Your task to perform on an android device: Clear all items from cart on costco.com. Search for "duracell triple a" on costco.com, select the first entry, and add it to the cart. Image 0: 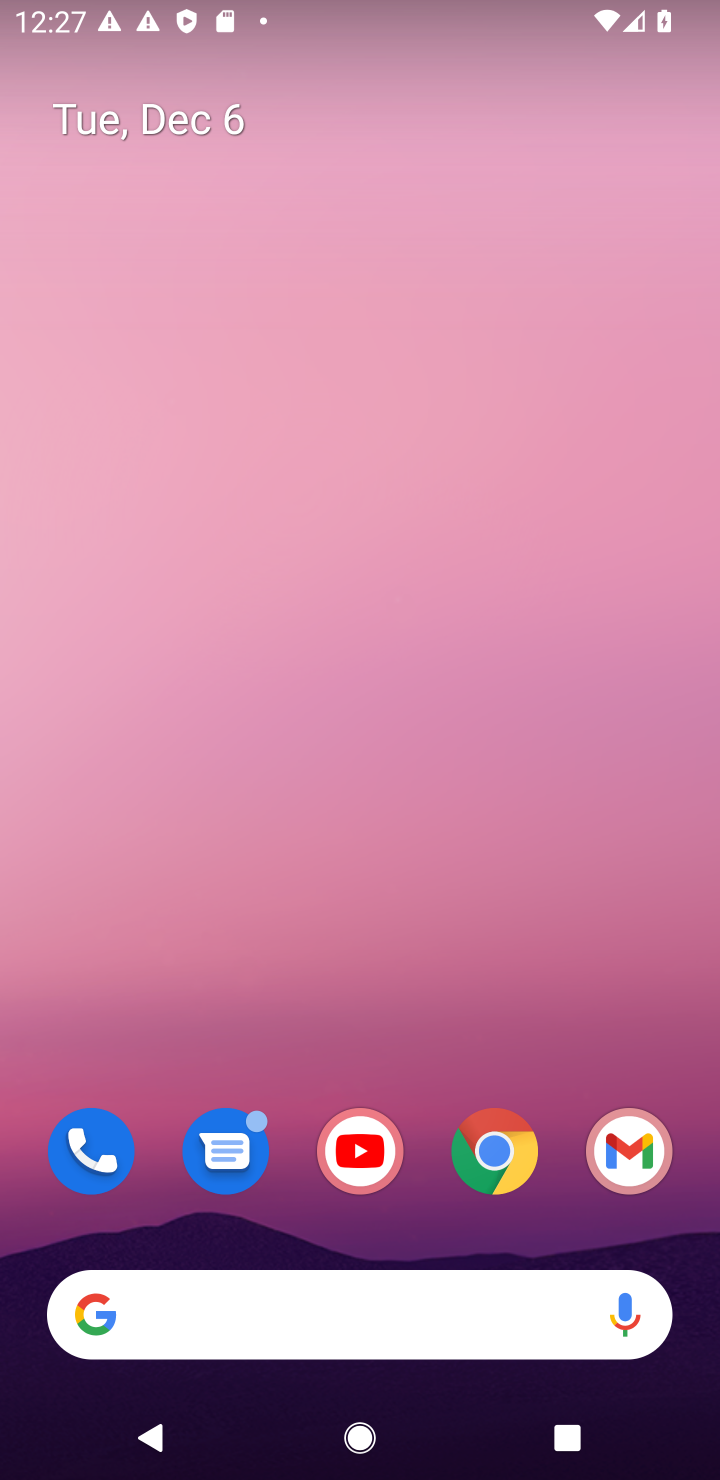
Step 0: click (489, 1166)
Your task to perform on an android device: Clear all items from cart on costco.com. Search for "duracell triple a" on costco.com, select the first entry, and add it to the cart. Image 1: 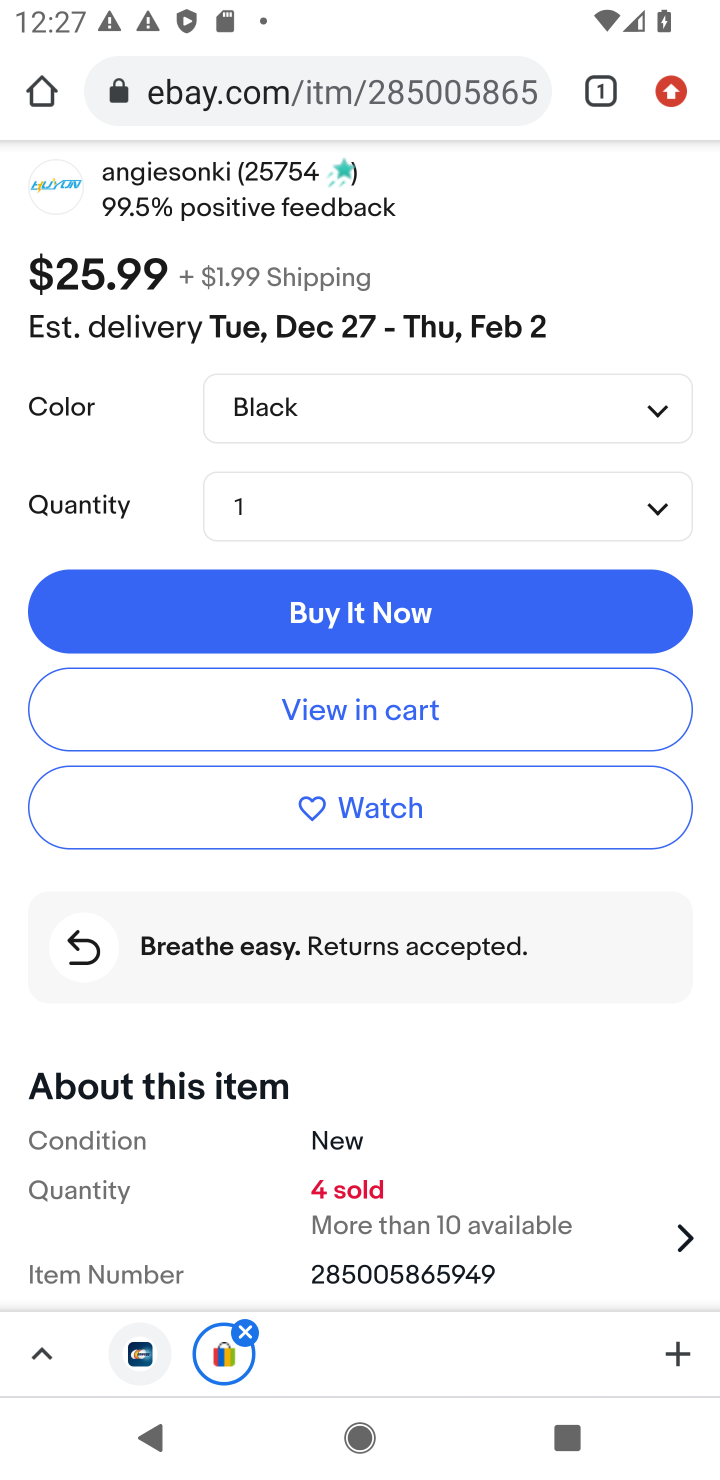
Step 1: click (288, 96)
Your task to perform on an android device: Clear all items from cart on costco.com. Search for "duracell triple a" on costco.com, select the first entry, and add it to the cart. Image 2: 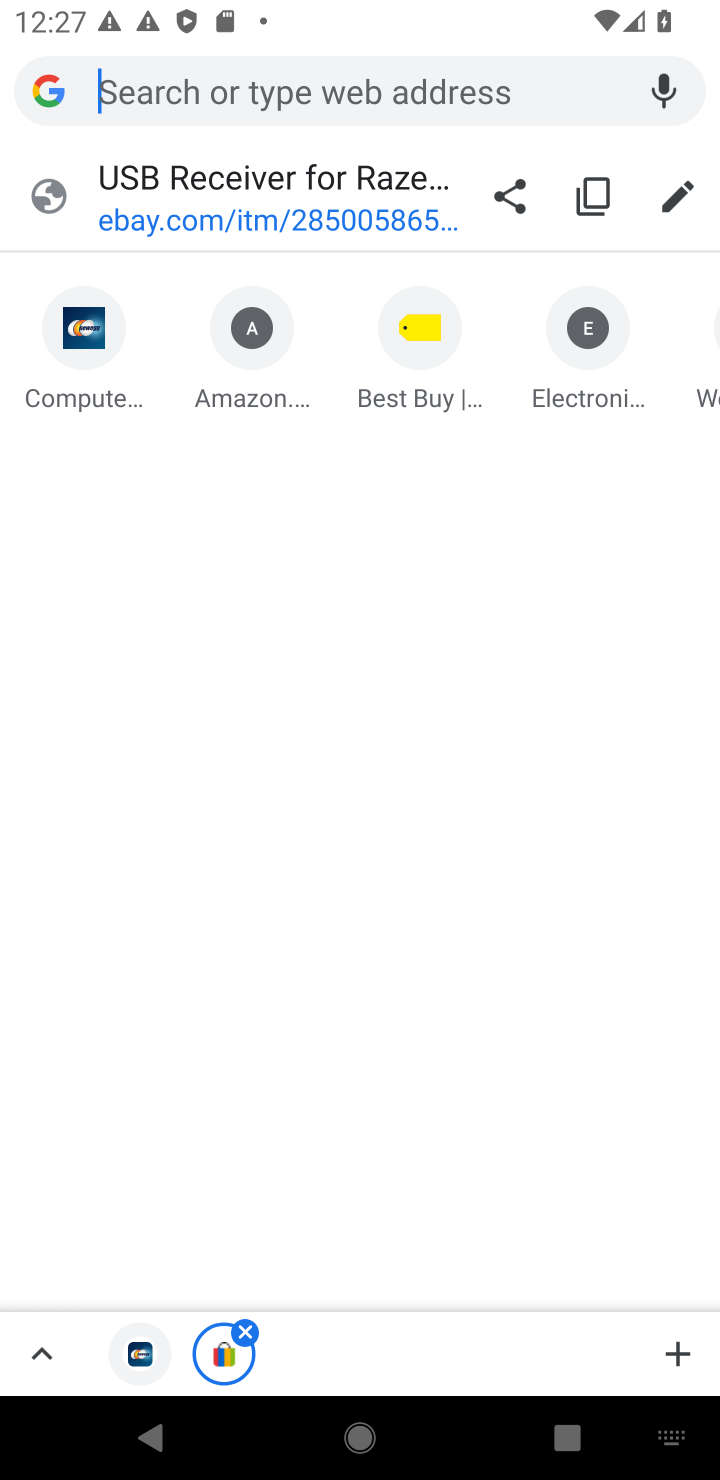
Step 2: type "costco.com"
Your task to perform on an android device: Clear all items from cart on costco.com. Search for "duracell triple a" on costco.com, select the first entry, and add it to the cart. Image 3: 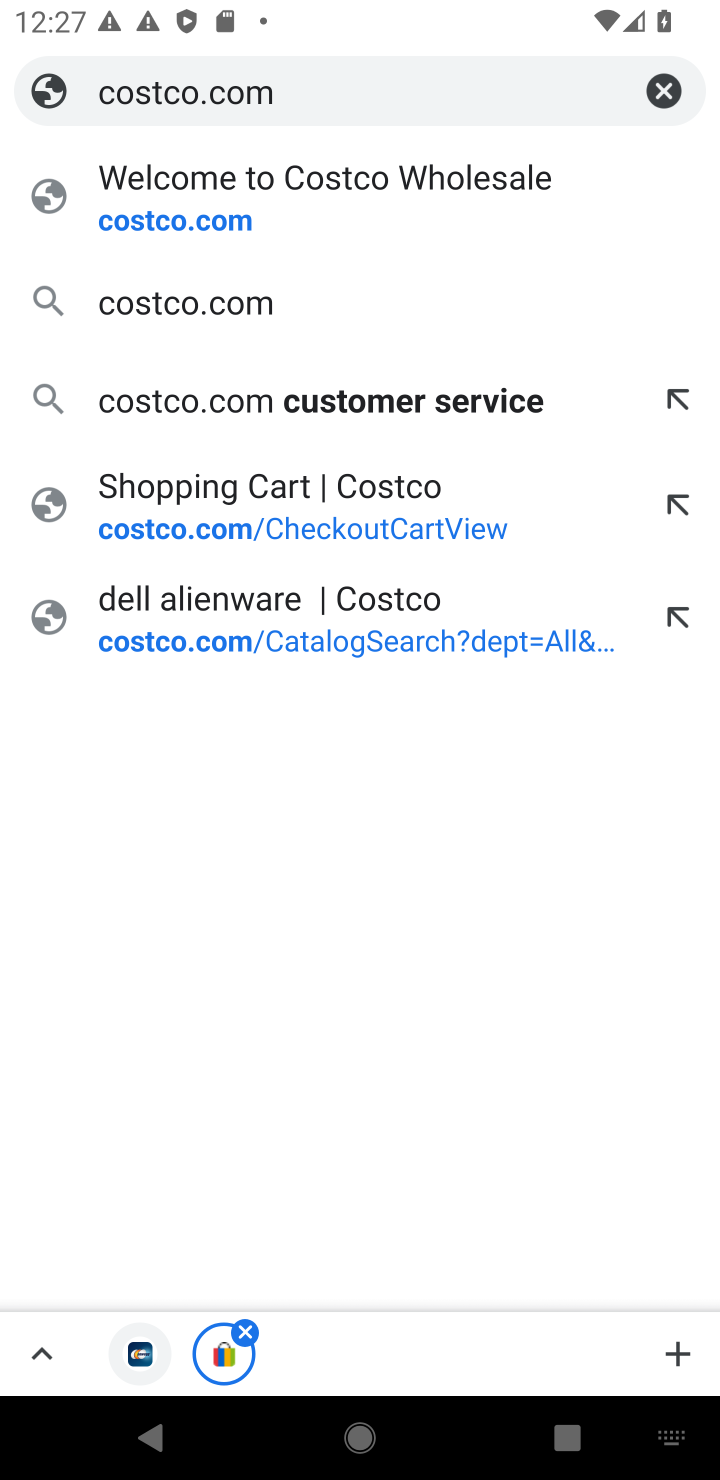
Step 3: click (154, 223)
Your task to perform on an android device: Clear all items from cart on costco.com. Search for "duracell triple a" on costco.com, select the first entry, and add it to the cart. Image 4: 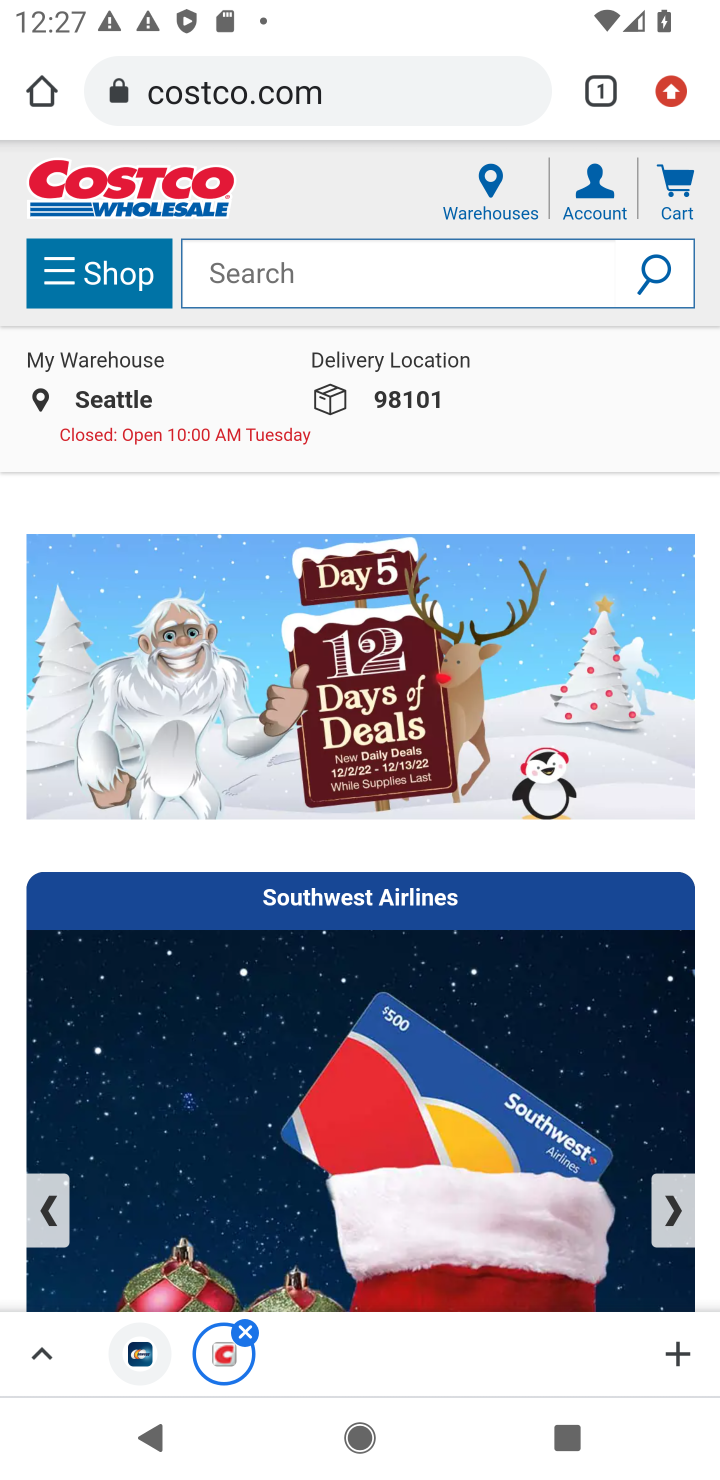
Step 4: click (676, 191)
Your task to perform on an android device: Clear all items from cart on costco.com. Search for "duracell triple a" on costco.com, select the first entry, and add it to the cart. Image 5: 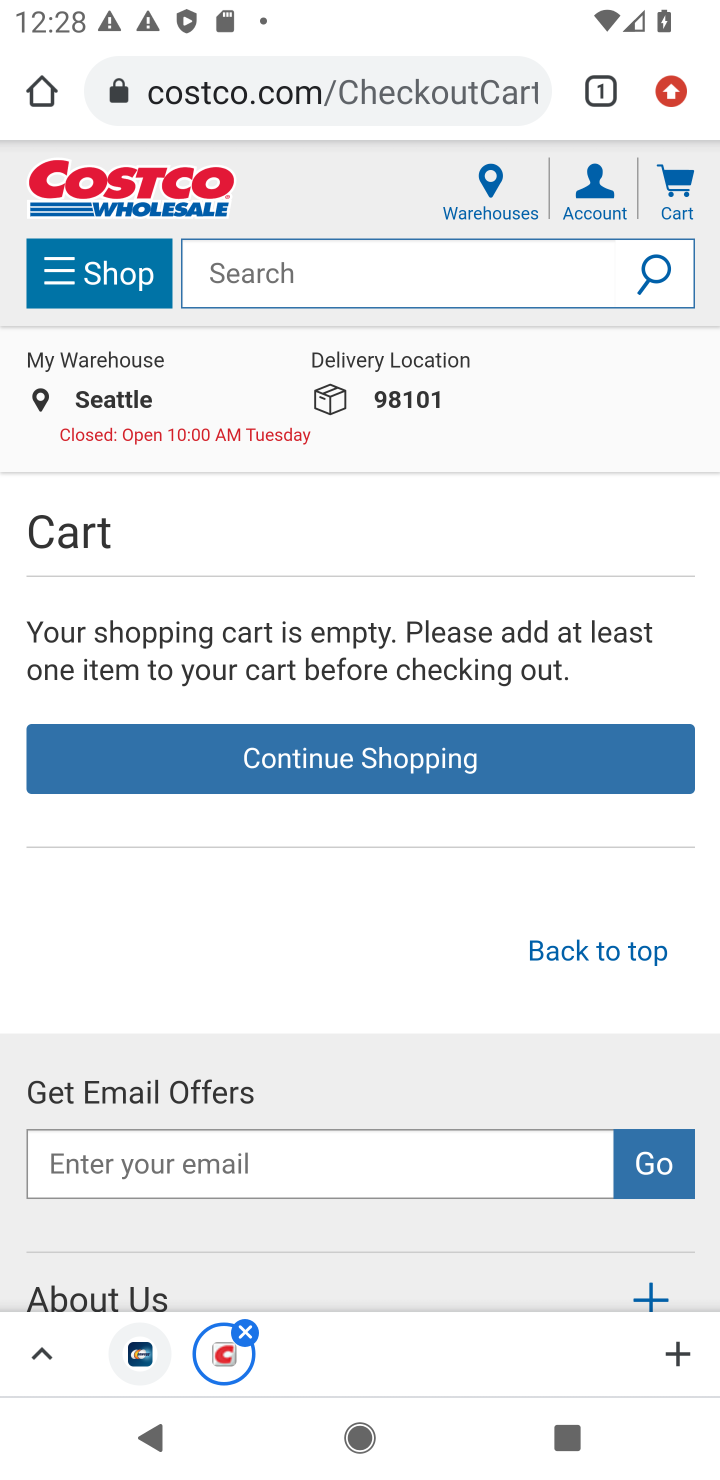
Step 5: click (325, 281)
Your task to perform on an android device: Clear all items from cart on costco.com. Search for "duracell triple a" on costco.com, select the first entry, and add it to the cart. Image 6: 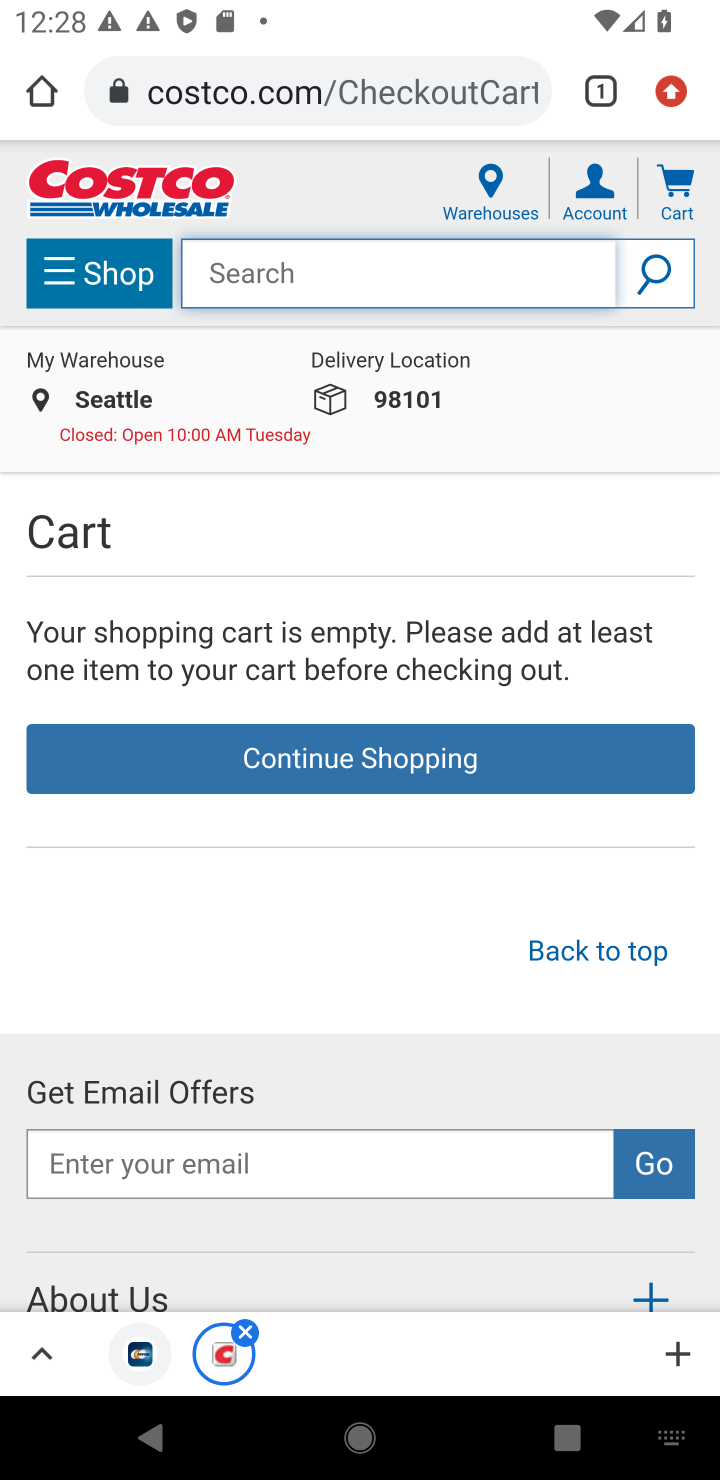
Step 6: type "duracell triple a"
Your task to perform on an android device: Clear all items from cart on costco.com. Search for "duracell triple a" on costco.com, select the first entry, and add it to the cart. Image 7: 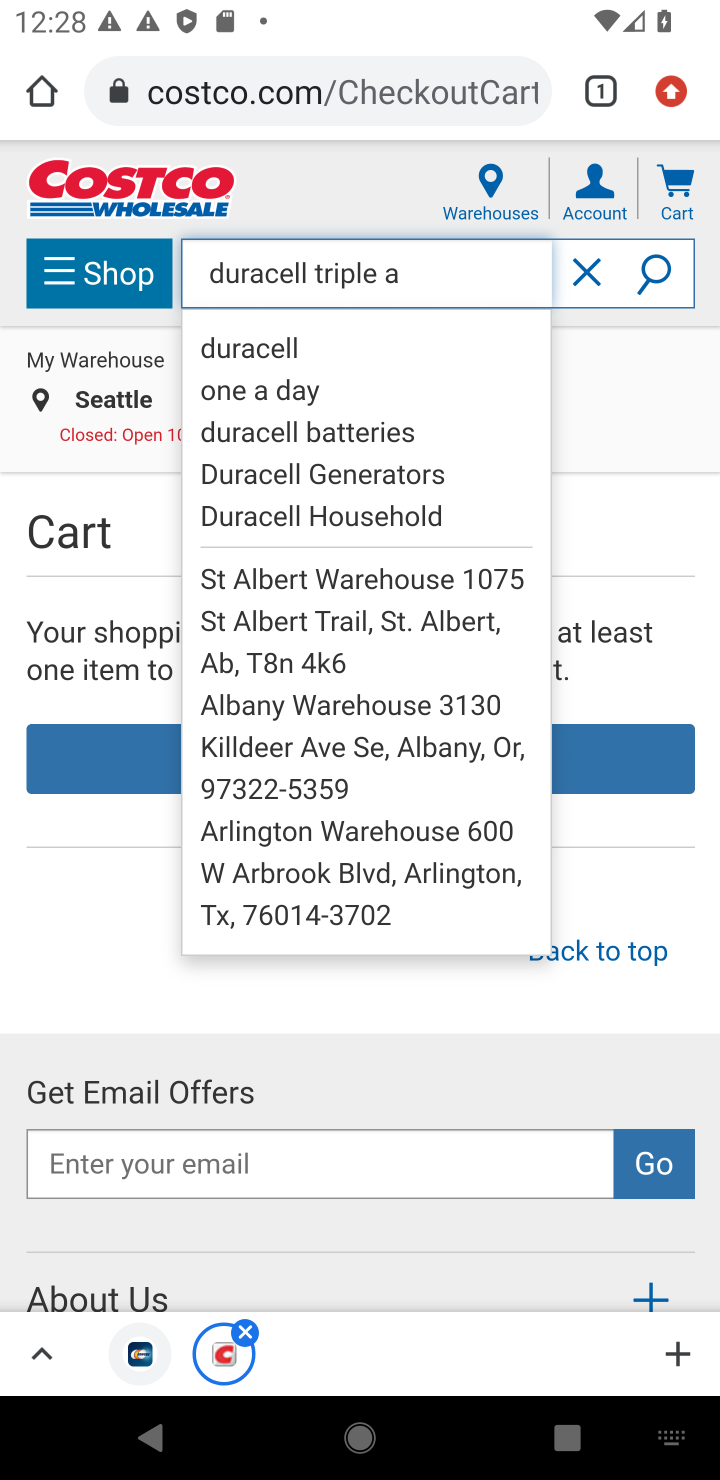
Step 7: click (646, 286)
Your task to perform on an android device: Clear all items from cart on costco.com. Search for "duracell triple a" on costco.com, select the first entry, and add it to the cart. Image 8: 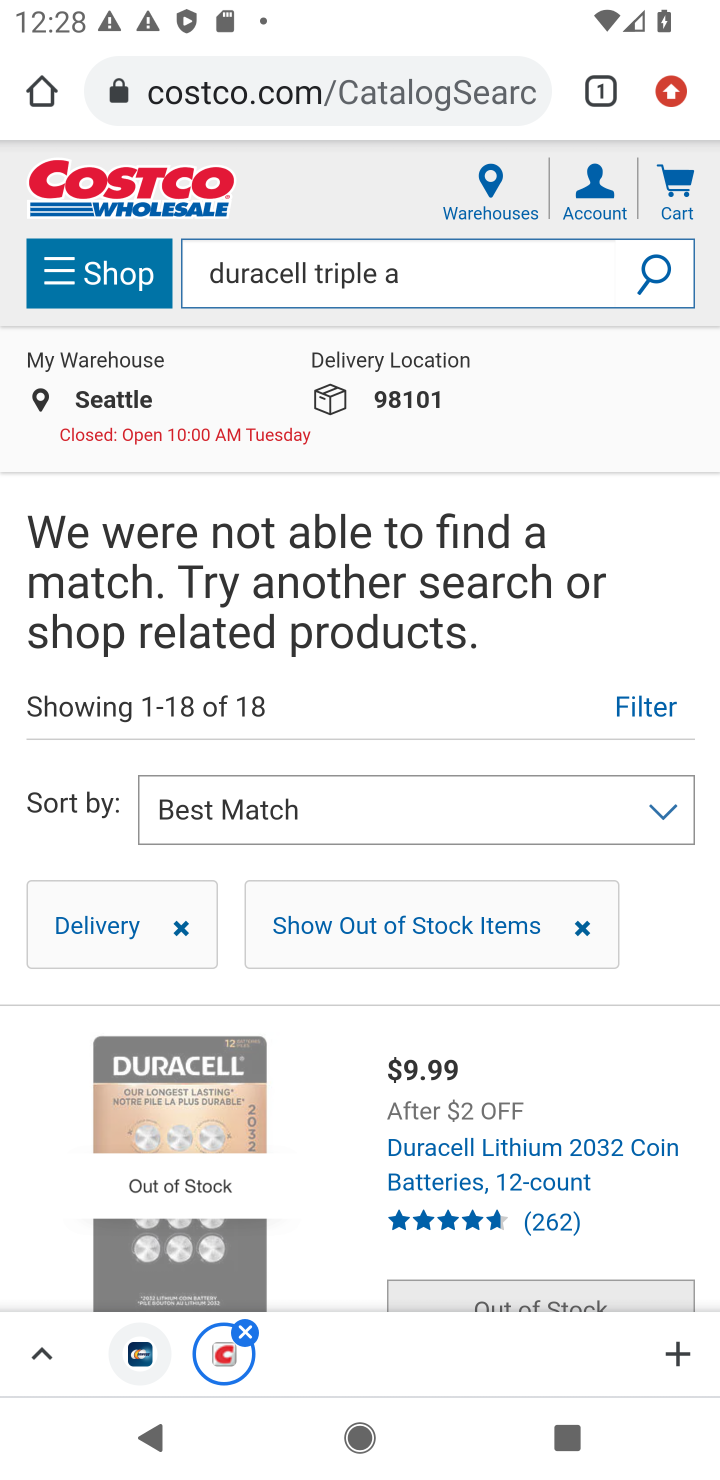
Step 8: task complete